Your task to perform on an android device: Search for pizza restaurants on Maps Image 0: 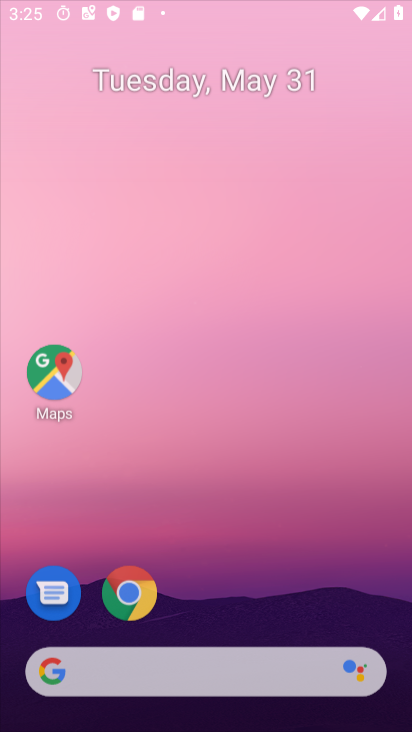
Step 0: press home button
Your task to perform on an android device: Search for pizza restaurants on Maps Image 1: 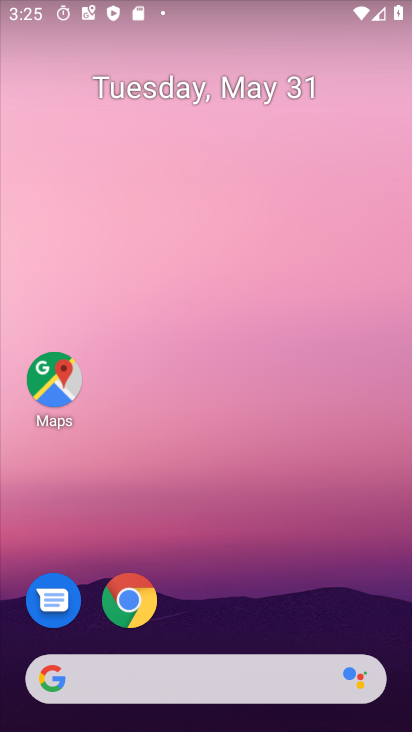
Step 1: drag from (214, 631) to (236, 66)
Your task to perform on an android device: Search for pizza restaurants on Maps Image 2: 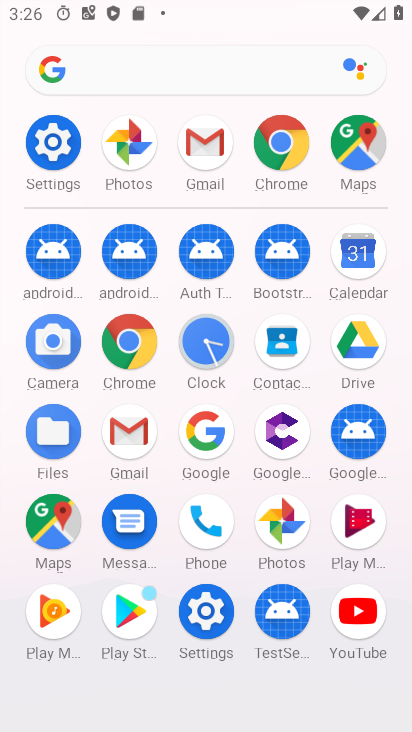
Step 2: click (357, 139)
Your task to perform on an android device: Search for pizza restaurants on Maps Image 3: 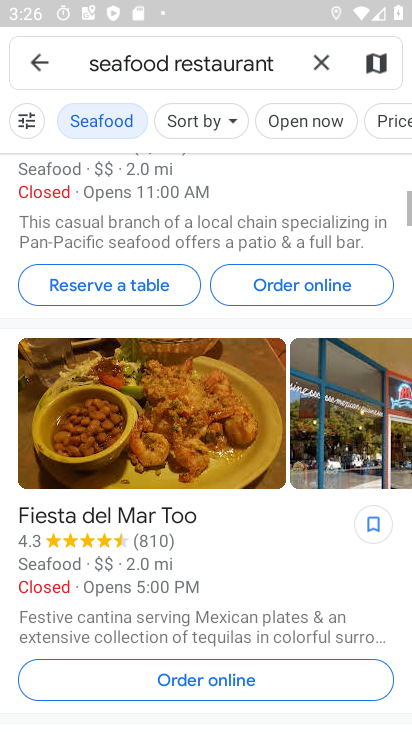
Step 3: click (41, 61)
Your task to perform on an android device: Search for pizza restaurants on Maps Image 4: 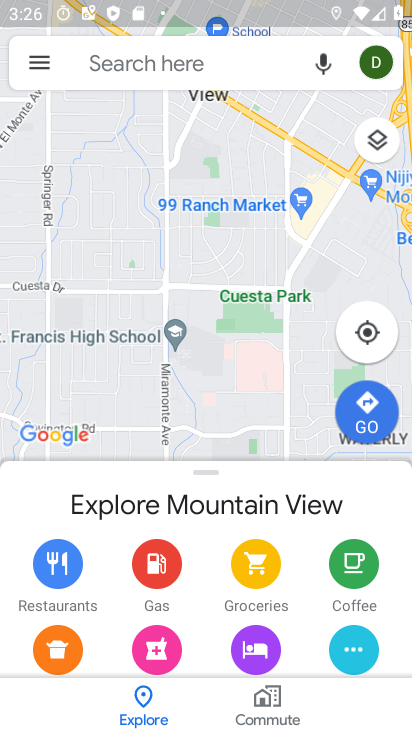
Step 4: click (138, 53)
Your task to perform on an android device: Search for pizza restaurants on Maps Image 5: 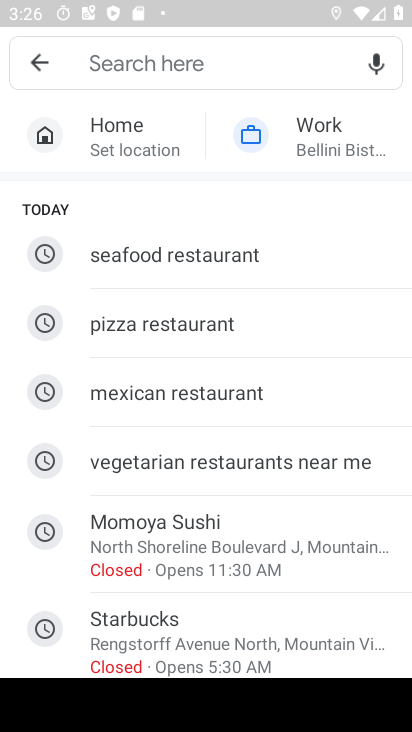
Step 5: click (172, 334)
Your task to perform on an android device: Search for pizza restaurants on Maps Image 6: 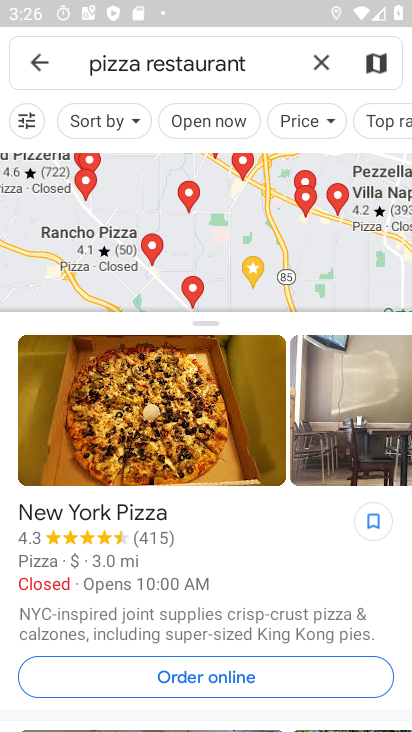
Step 6: drag from (220, 603) to (200, 160)
Your task to perform on an android device: Search for pizza restaurants on Maps Image 7: 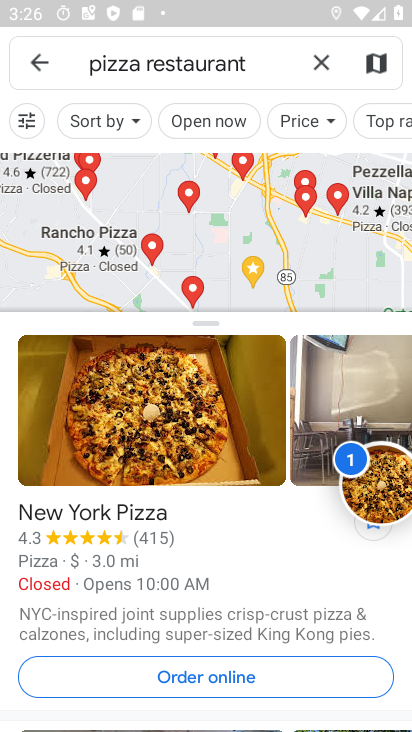
Step 7: drag from (383, 478) to (180, 729)
Your task to perform on an android device: Search for pizza restaurants on Maps Image 8: 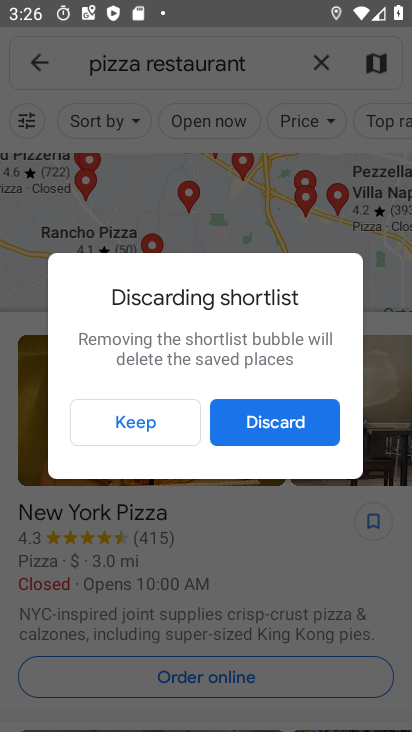
Step 8: click (291, 415)
Your task to perform on an android device: Search for pizza restaurants on Maps Image 9: 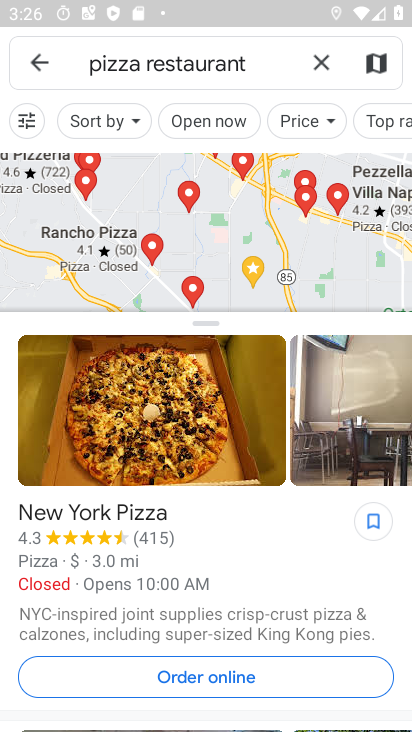
Step 9: task complete